Your task to perform on an android device: Open internet settings Image 0: 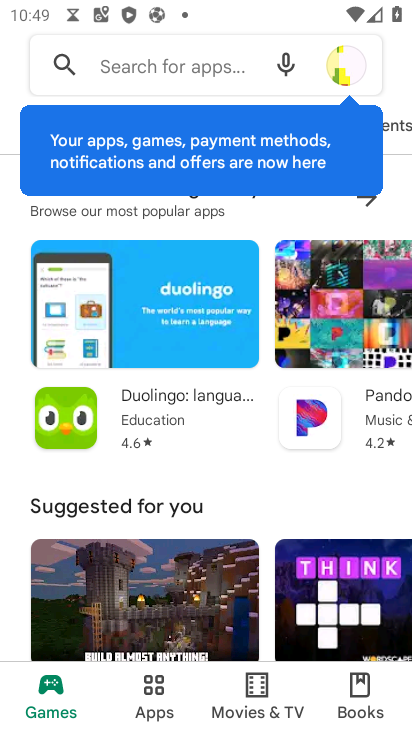
Step 0: press home button
Your task to perform on an android device: Open internet settings Image 1: 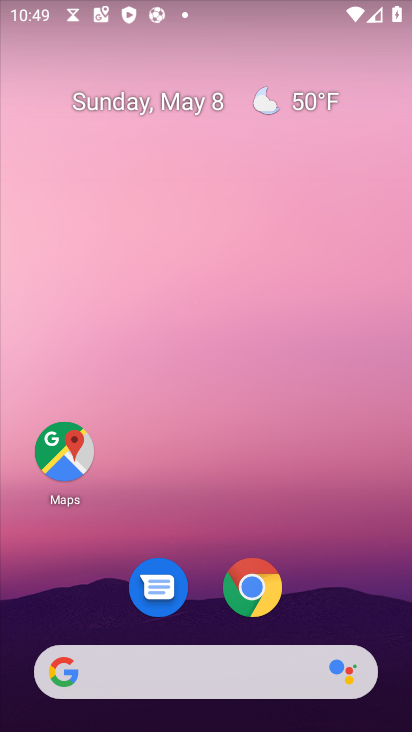
Step 1: drag from (309, 541) to (173, 120)
Your task to perform on an android device: Open internet settings Image 2: 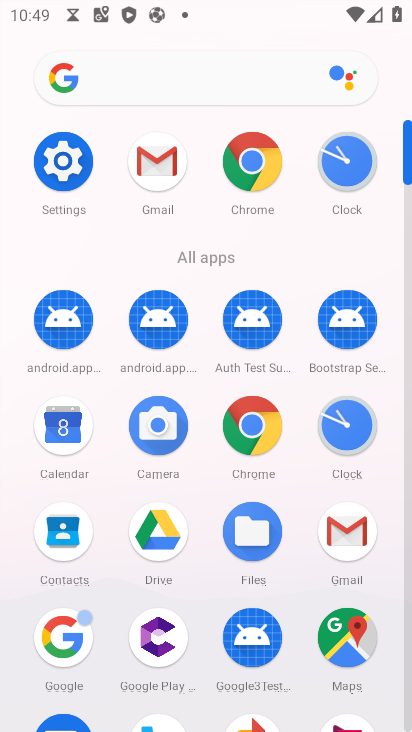
Step 2: click (84, 154)
Your task to perform on an android device: Open internet settings Image 3: 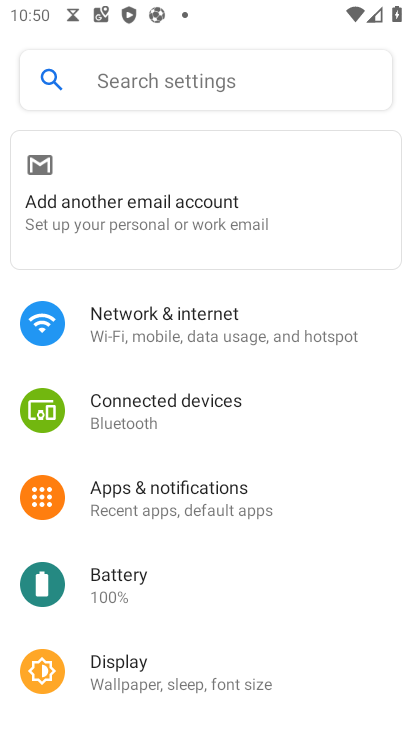
Step 3: click (200, 325)
Your task to perform on an android device: Open internet settings Image 4: 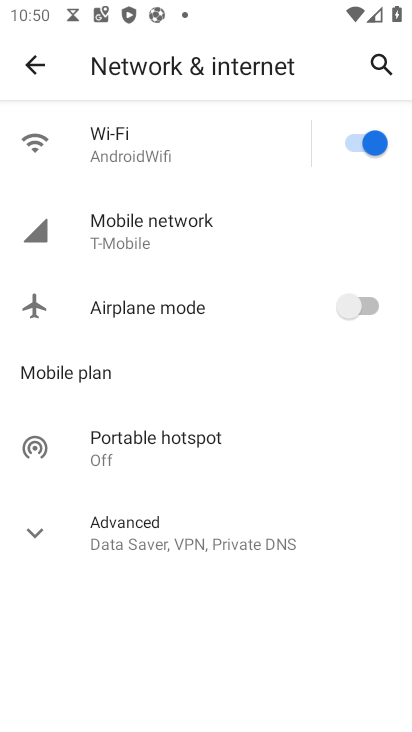
Step 4: task complete